Your task to perform on an android device: Open internet settings Image 0: 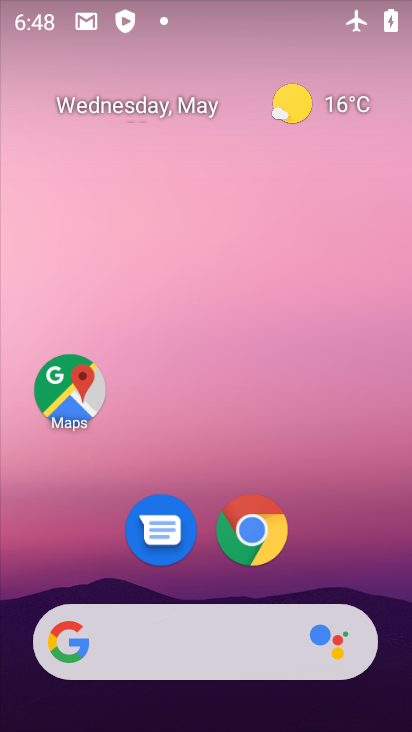
Step 0: drag from (186, 581) to (221, 177)
Your task to perform on an android device: Open internet settings Image 1: 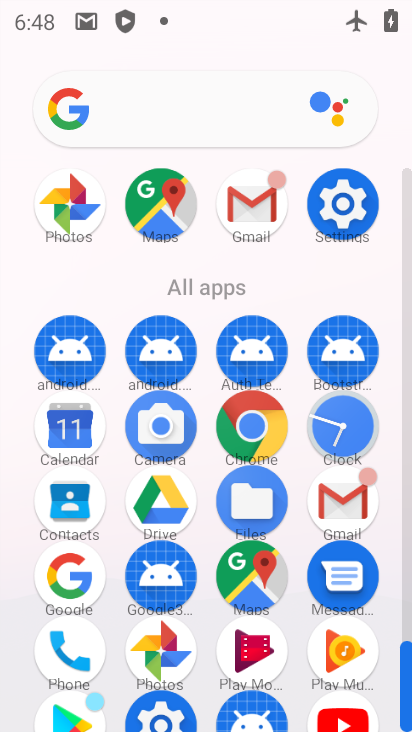
Step 1: click (340, 206)
Your task to perform on an android device: Open internet settings Image 2: 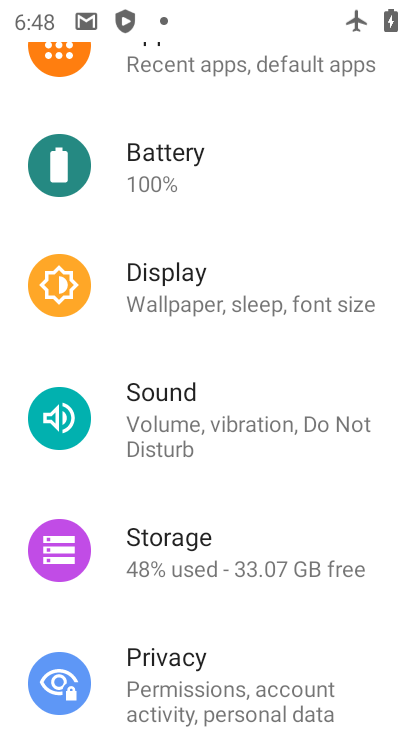
Step 2: drag from (225, 144) to (228, 498)
Your task to perform on an android device: Open internet settings Image 3: 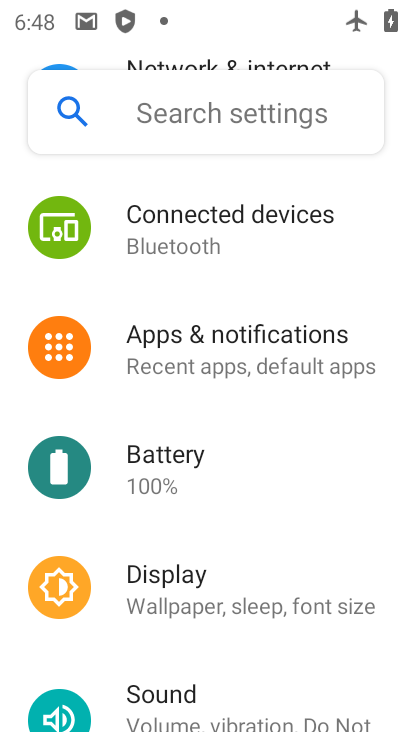
Step 3: drag from (235, 193) to (219, 539)
Your task to perform on an android device: Open internet settings Image 4: 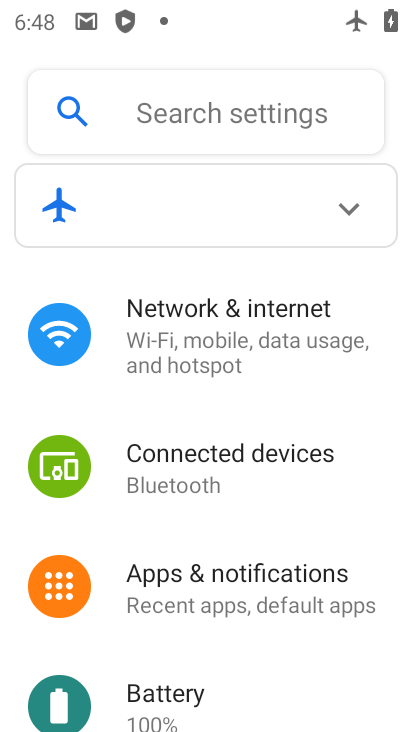
Step 4: click (190, 331)
Your task to perform on an android device: Open internet settings Image 5: 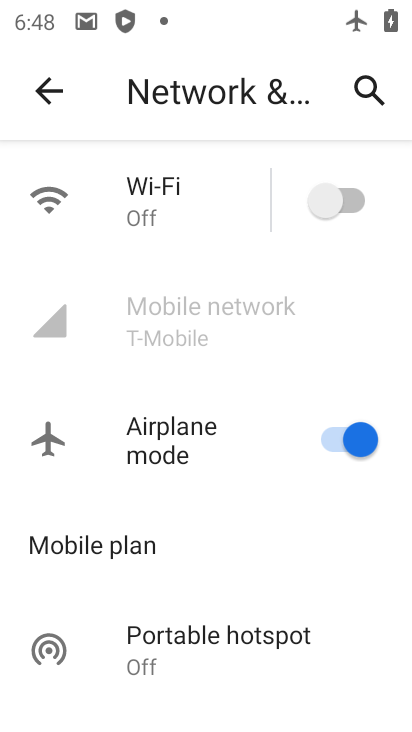
Step 5: drag from (203, 369) to (252, 111)
Your task to perform on an android device: Open internet settings Image 6: 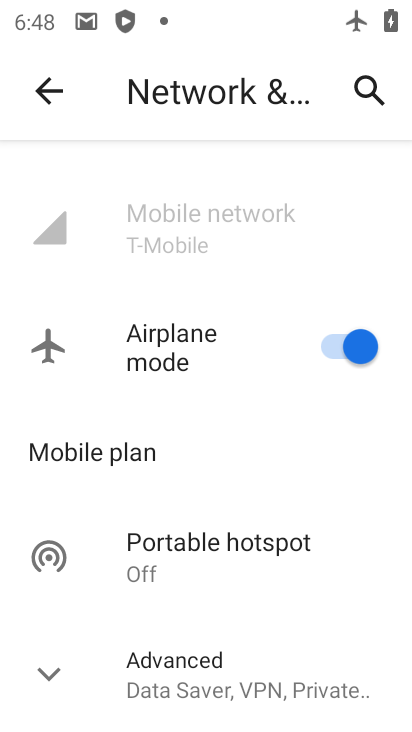
Step 6: click (51, 665)
Your task to perform on an android device: Open internet settings Image 7: 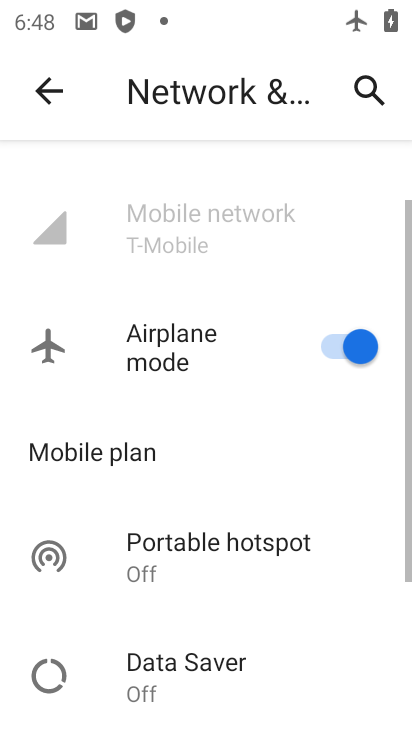
Step 7: task complete